Your task to perform on an android device: delete location history Image 0: 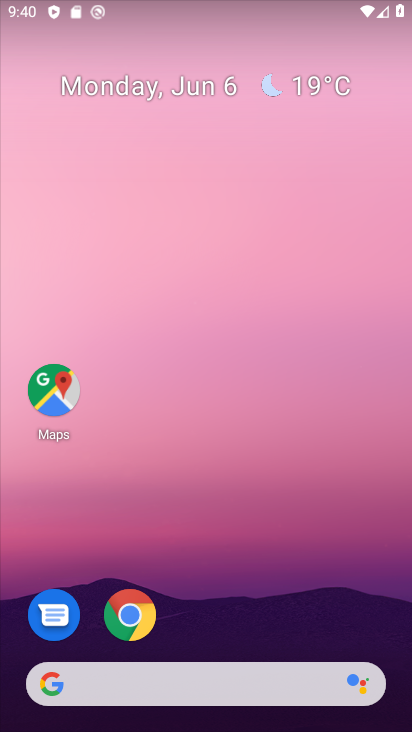
Step 0: task complete